Your task to perform on an android device: turn off location Image 0: 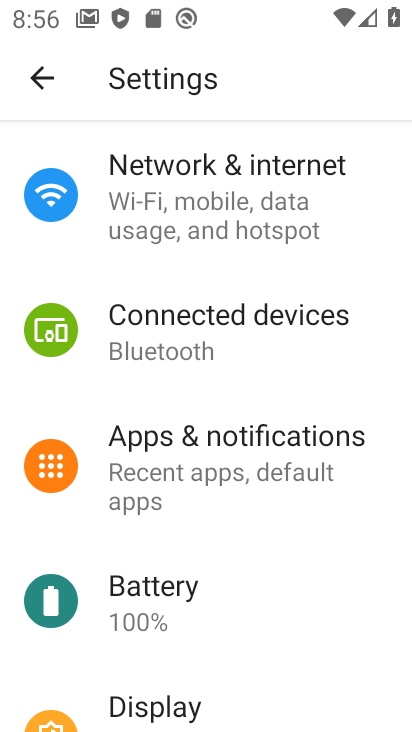
Step 0: drag from (352, 636) to (396, 200)
Your task to perform on an android device: turn off location Image 1: 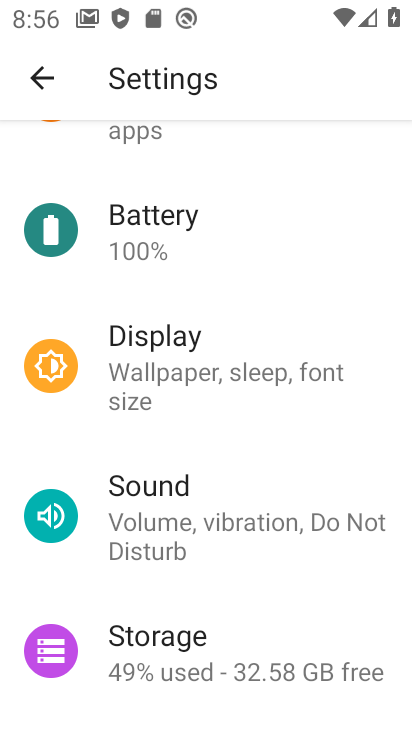
Step 1: drag from (377, 673) to (342, 160)
Your task to perform on an android device: turn off location Image 2: 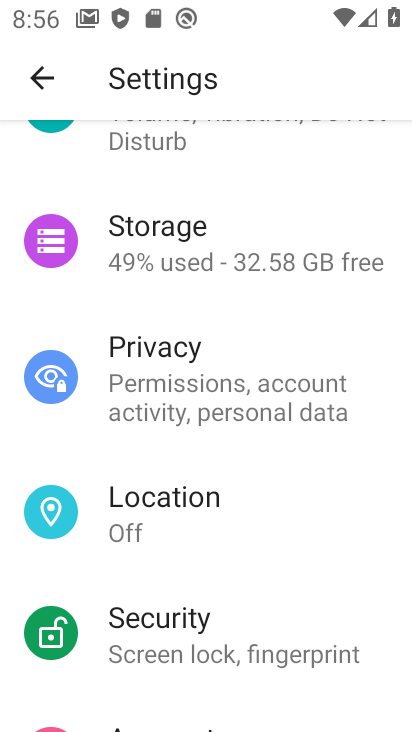
Step 2: click (120, 512)
Your task to perform on an android device: turn off location Image 3: 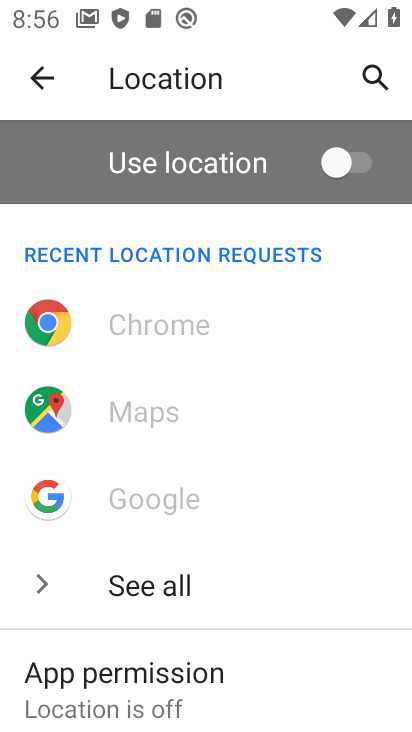
Step 3: task complete